Your task to perform on an android device: What's a good restaurant in San Diego? Image 0: 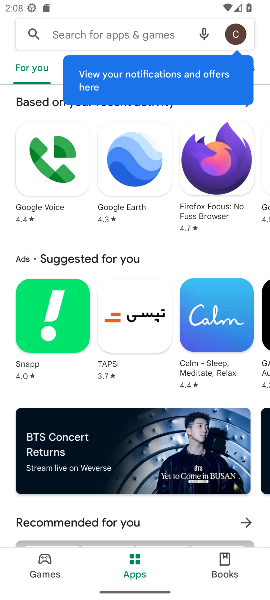
Step 0: press home button
Your task to perform on an android device: What's a good restaurant in San Diego? Image 1: 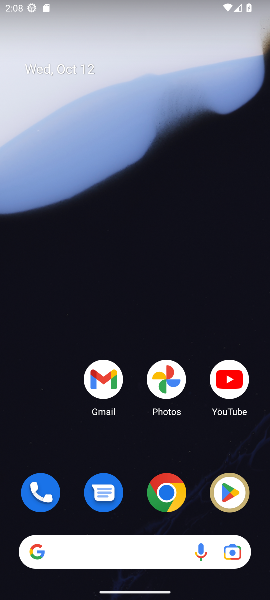
Step 1: click (163, 500)
Your task to perform on an android device: What's a good restaurant in San Diego? Image 2: 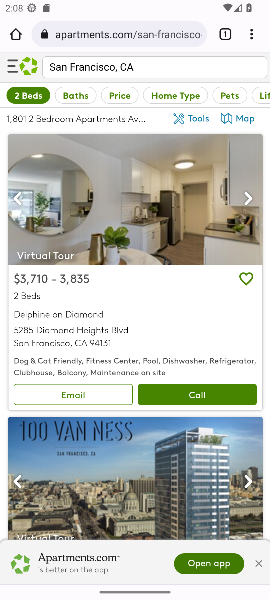
Step 2: click (98, 35)
Your task to perform on an android device: What's a good restaurant in San Diego? Image 3: 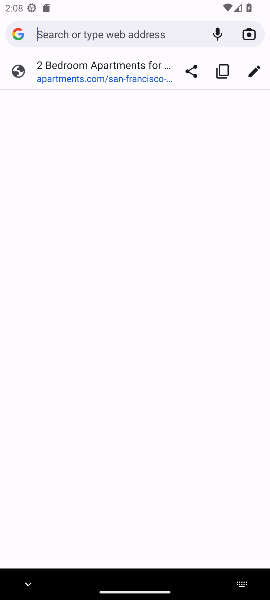
Step 3: type " good restaurant in San Diego"
Your task to perform on an android device: What's a good restaurant in San Diego? Image 4: 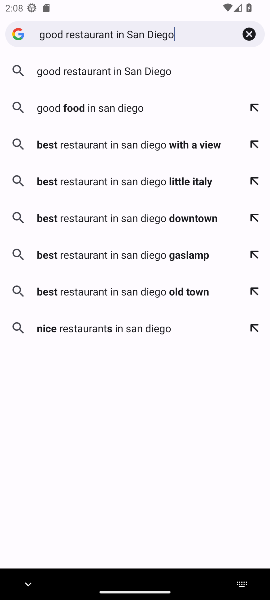
Step 4: click (80, 73)
Your task to perform on an android device: What's a good restaurant in San Diego? Image 5: 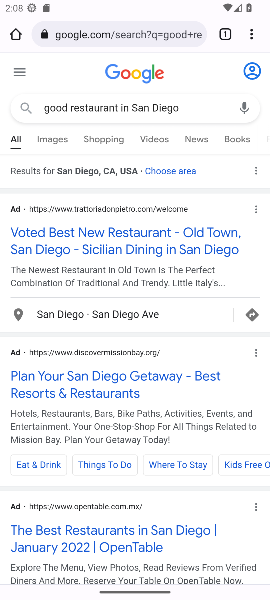
Step 5: click (57, 244)
Your task to perform on an android device: What's a good restaurant in San Diego? Image 6: 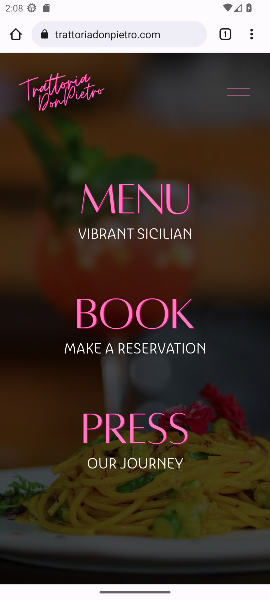
Step 6: drag from (158, 399) to (168, 150)
Your task to perform on an android device: What's a good restaurant in San Diego? Image 7: 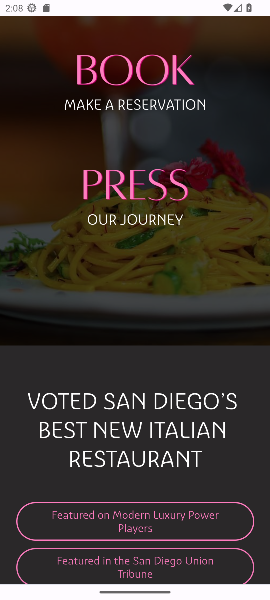
Step 7: drag from (137, 392) to (143, 107)
Your task to perform on an android device: What's a good restaurant in San Diego? Image 8: 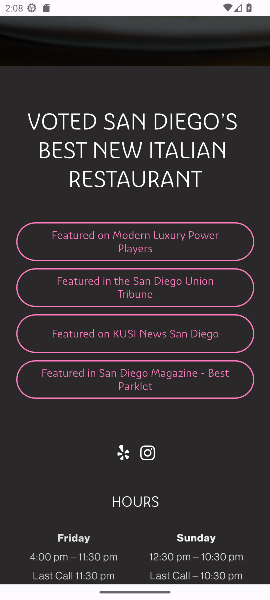
Step 8: drag from (150, 423) to (146, 135)
Your task to perform on an android device: What's a good restaurant in San Diego? Image 9: 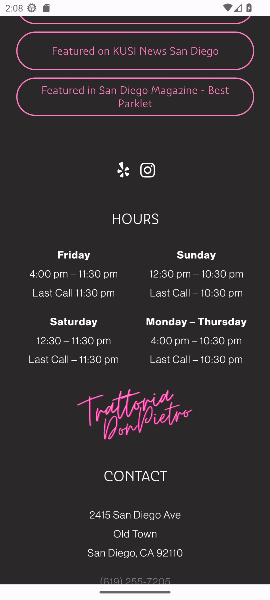
Step 9: drag from (135, 455) to (141, 129)
Your task to perform on an android device: What's a good restaurant in San Diego? Image 10: 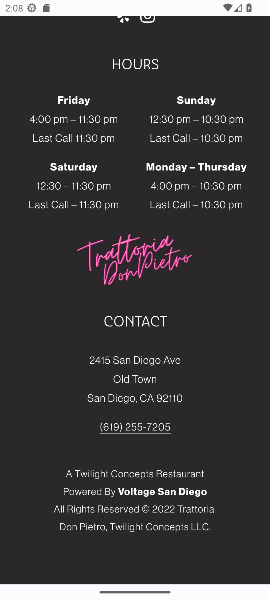
Step 10: drag from (131, 473) to (143, 154)
Your task to perform on an android device: What's a good restaurant in San Diego? Image 11: 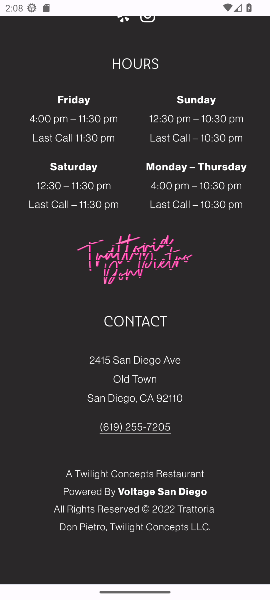
Step 11: press back button
Your task to perform on an android device: What's a good restaurant in San Diego? Image 12: 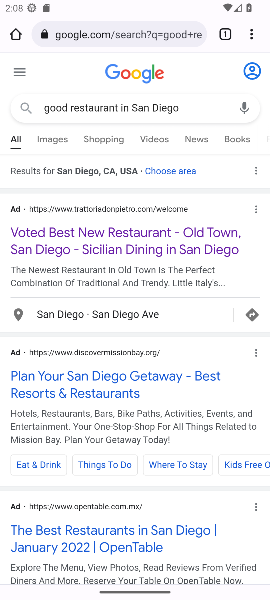
Step 12: click (52, 380)
Your task to perform on an android device: What's a good restaurant in San Diego? Image 13: 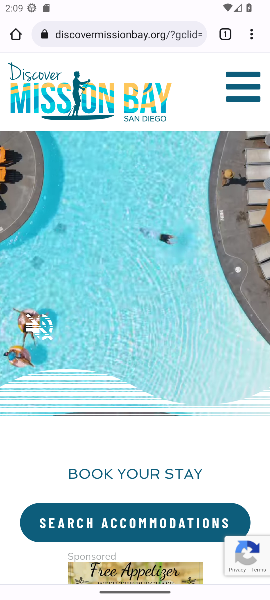
Step 13: task complete